Your task to perform on an android device: turn off location history Image 0: 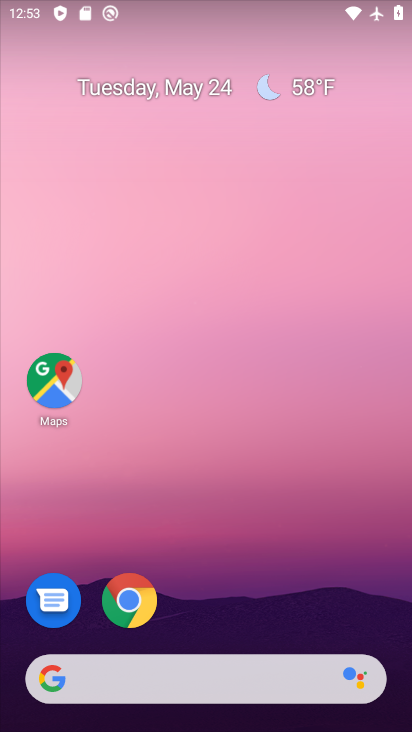
Step 0: drag from (275, 483) to (236, 28)
Your task to perform on an android device: turn off location history Image 1: 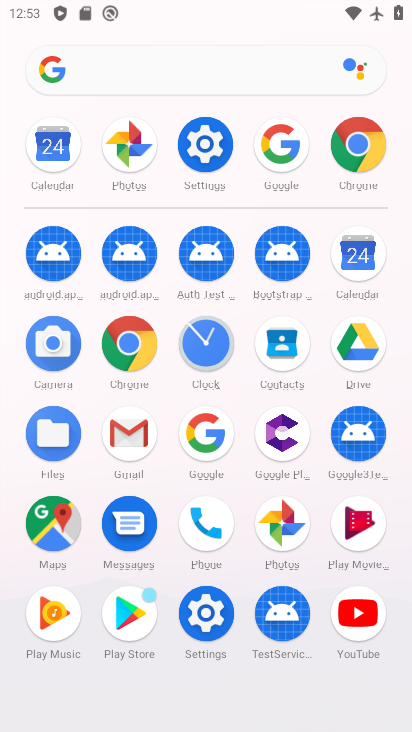
Step 1: click (204, 161)
Your task to perform on an android device: turn off location history Image 2: 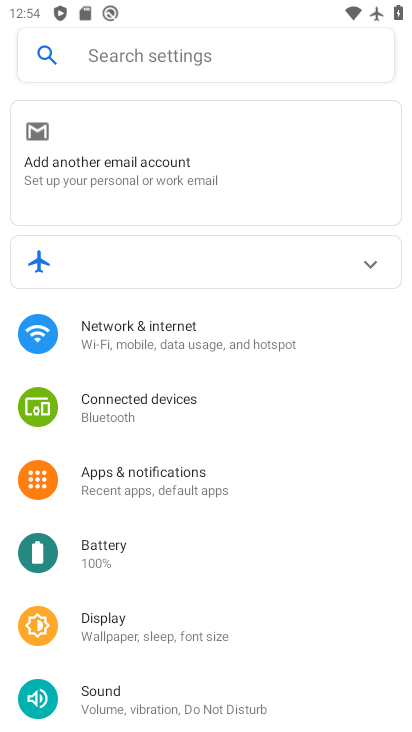
Step 2: drag from (248, 609) to (227, 163)
Your task to perform on an android device: turn off location history Image 3: 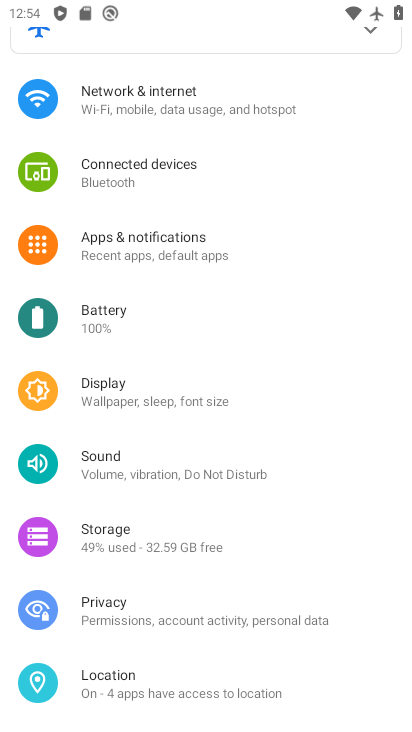
Step 3: click (215, 672)
Your task to perform on an android device: turn off location history Image 4: 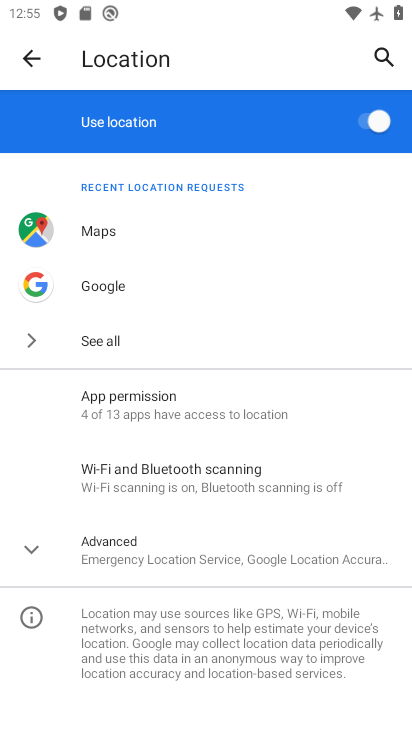
Step 4: click (214, 553)
Your task to perform on an android device: turn off location history Image 5: 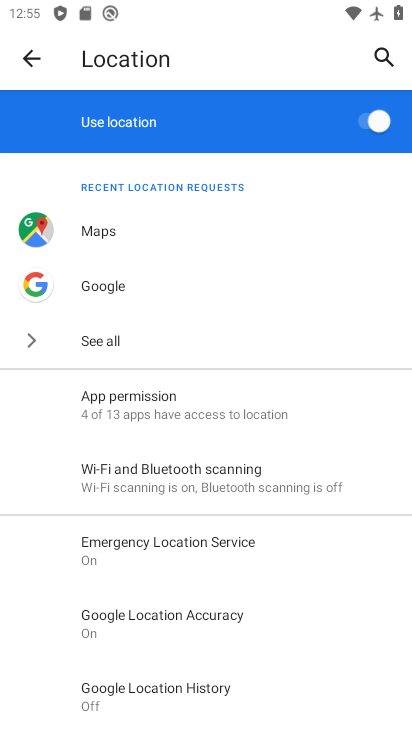
Step 5: drag from (261, 615) to (224, 132)
Your task to perform on an android device: turn off location history Image 6: 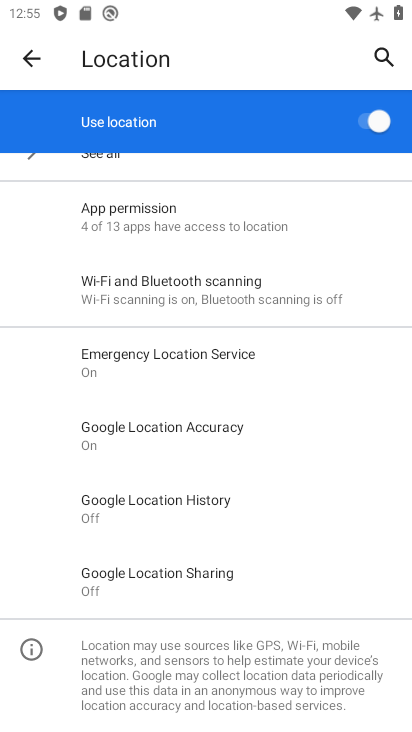
Step 6: click (216, 502)
Your task to perform on an android device: turn off location history Image 7: 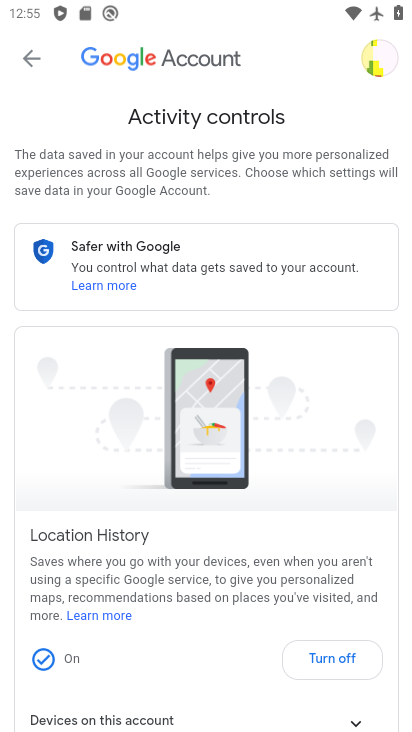
Step 7: click (341, 651)
Your task to perform on an android device: turn off location history Image 8: 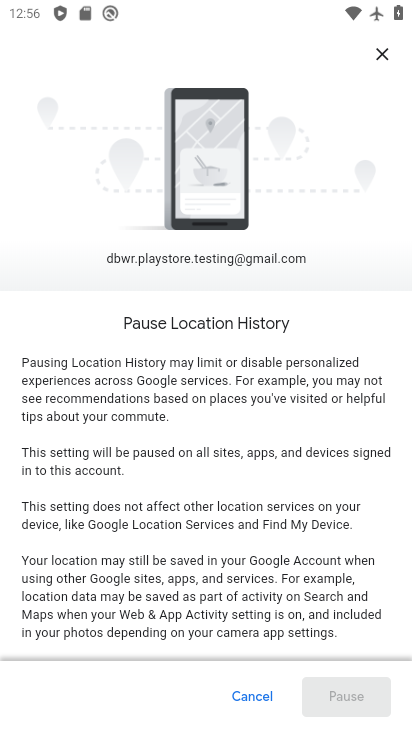
Step 8: drag from (300, 596) to (180, 89)
Your task to perform on an android device: turn off location history Image 9: 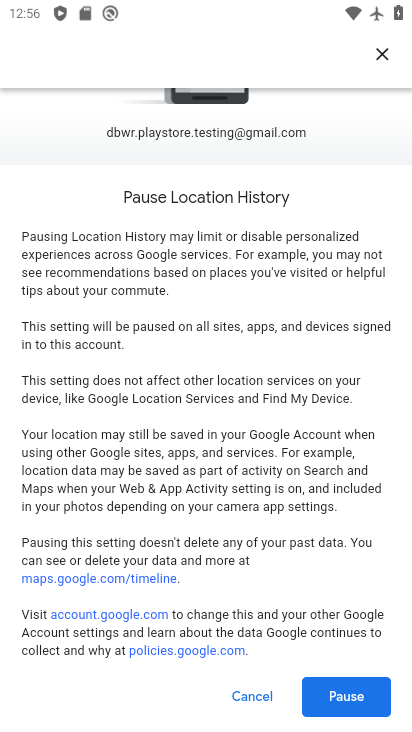
Step 9: drag from (277, 547) to (257, 194)
Your task to perform on an android device: turn off location history Image 10: 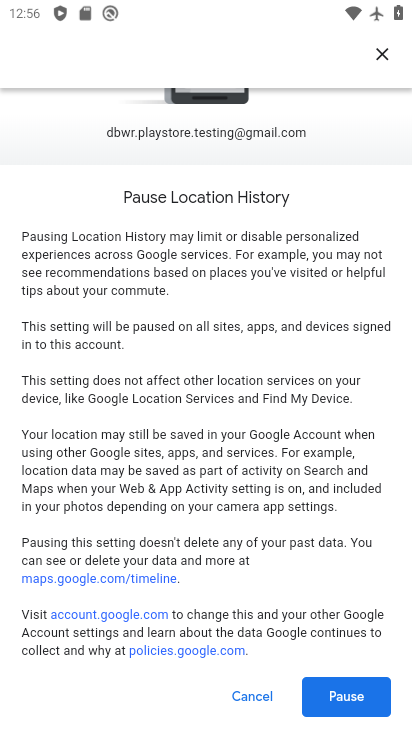
Step 10: click (349, 696)
Your task to perform on an android device: turn off location history Image 11: 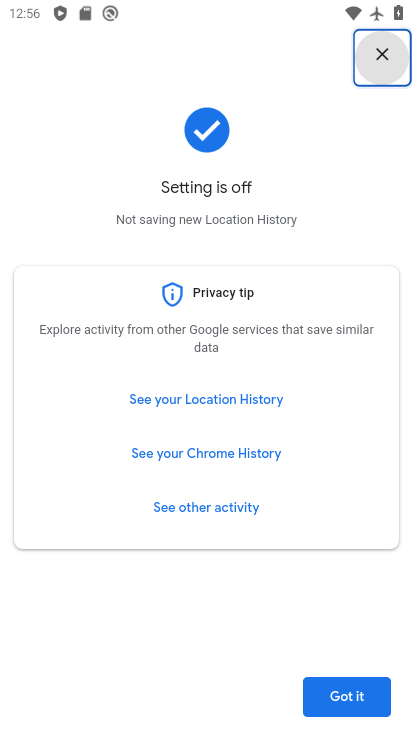
Step 11: click (354, 690)
Your task to perform on an android device: turn off location history Image 12: 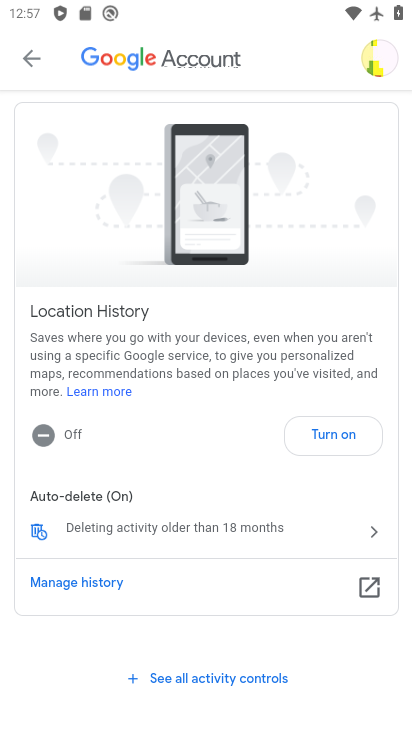
Step 12: task complete